Your task to perform on an android device: find photos in the google photos app Image 0: 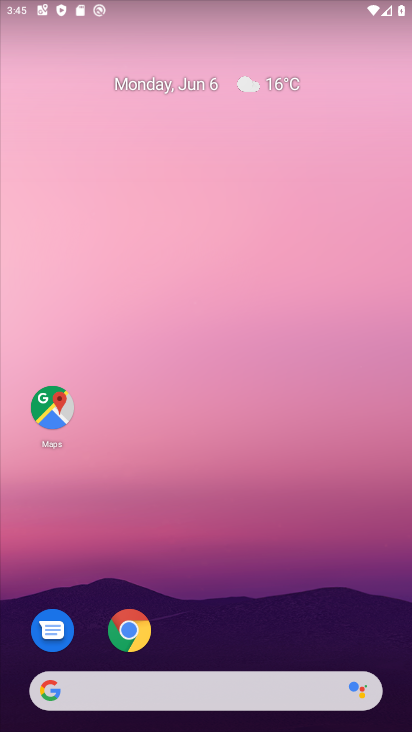
Step 0: drag from (221, 313) to (239, 168)
Your task to perform on an android device: find photos in the google photos app Image 1: 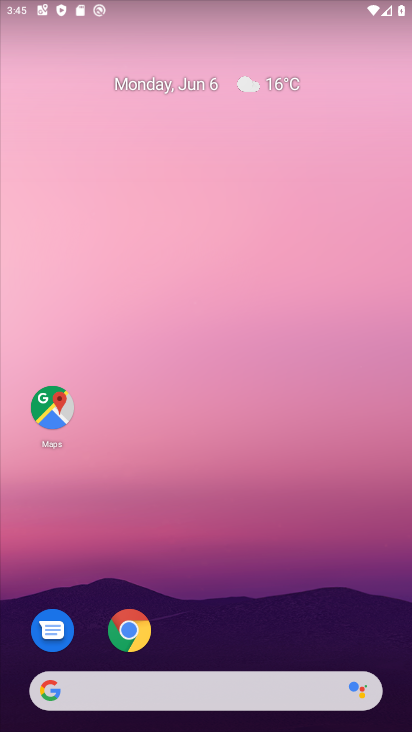
Step 1: drag from (224, 614) to (252, 183)
Your task to perform on an android device: find photos in the google photos app Image 2: 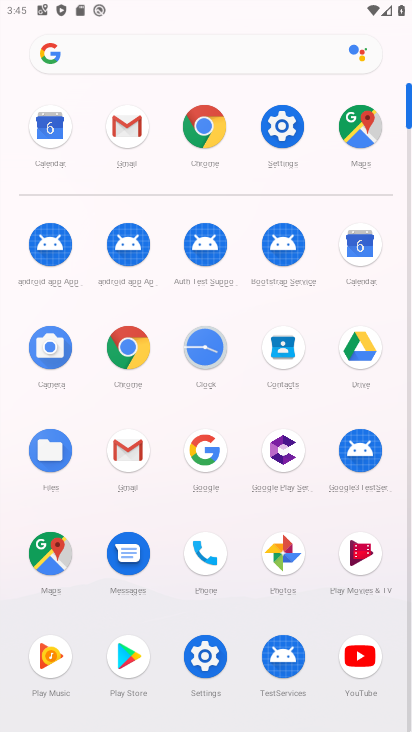
Step 2: click (283, 546)
Your task to perform on an android device: find photos in the google photos app Image 3: 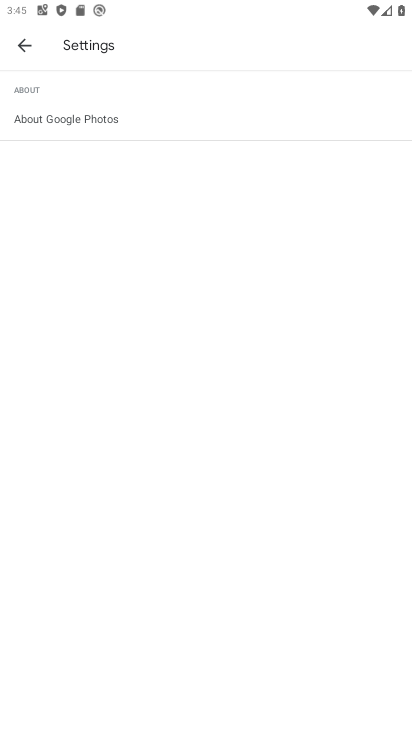
Step 3: click (32, 50)
Your task to perform on an android device: find photos in the google photos app Image 4: 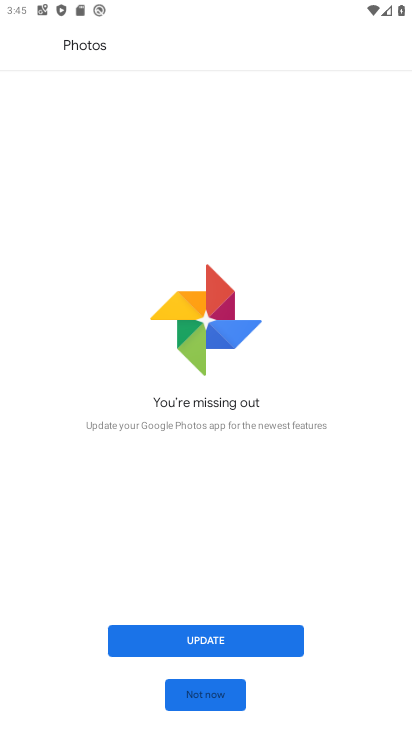
Step 4: click (189, 693)
Your task to perform on an android device: find photos in the google photos app Image 5: 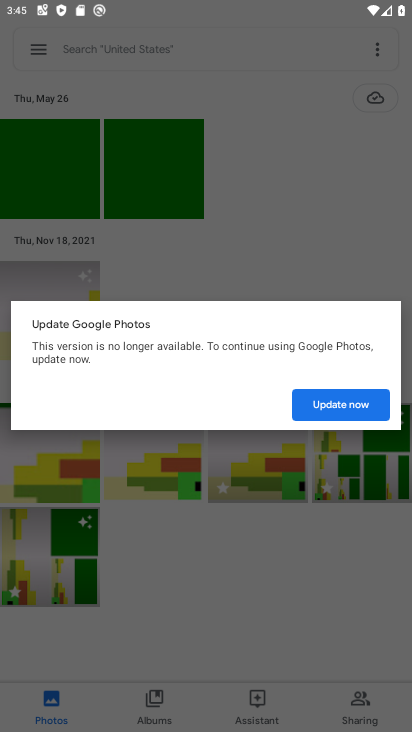
Step 5: click (353, 399)
Your task to perform on an android device: find photos in the google photos app Image 6: 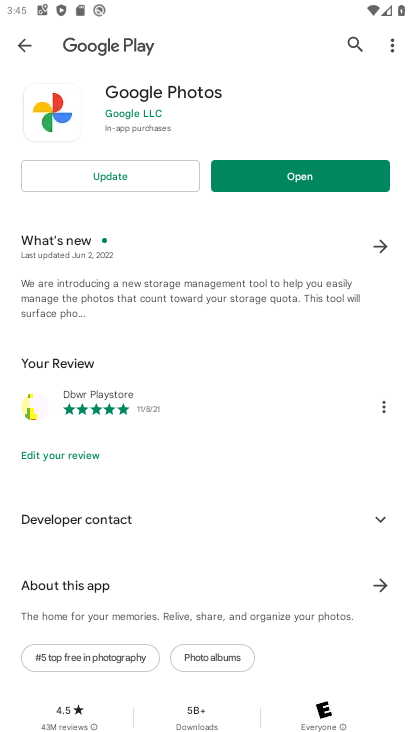
Step 6: click (313, 184)
Your task to perform on an android device: find photos in the google photos app Image 7: 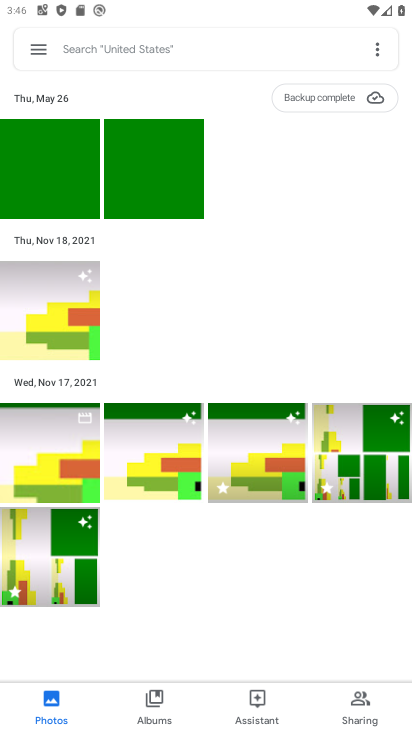
Step 7: click (55, 698)
Your task to perform on an android device: find photos in the google photos app Image 8: 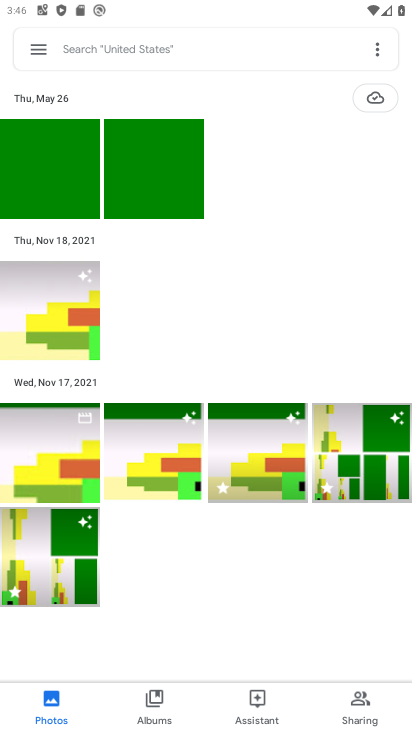
Step 8: task complete